Your task to perform on an android device: Turn off the flashlight Image 0: 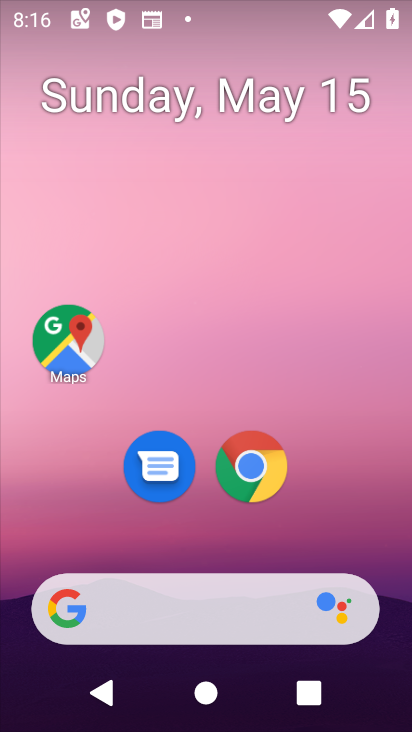
Step 0: drag from (213, 545) to (262, 9)
Your task to perform on an android device: Turn off the flashlight Image 1: 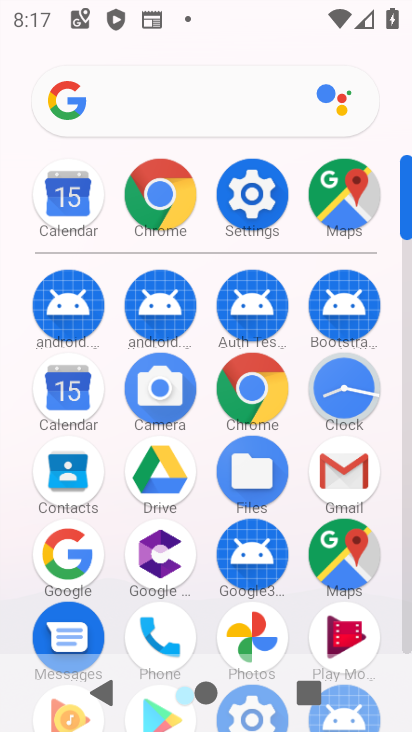
Step 1: click (272, 202)
Your task to perform on an android device: Turn off the flashlight Image 2: 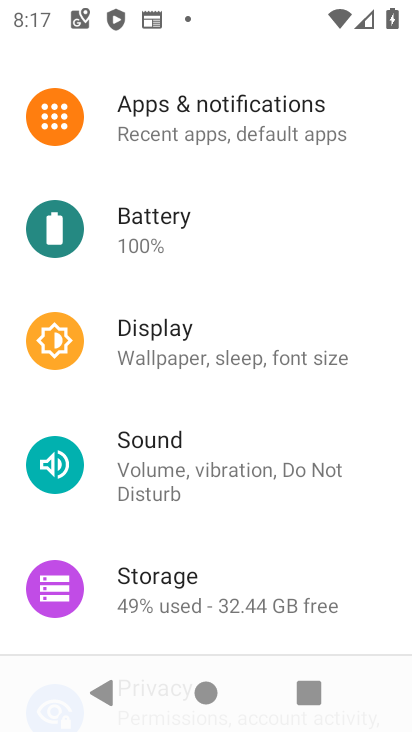
Step 2: click (194, 357)
Your task to perform on an android device: Turn off the flashlight Image 3: 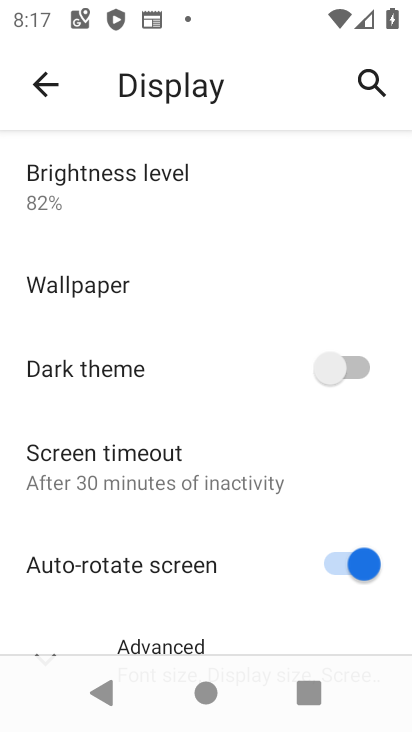
Step 3: drag from (233, 491) to (221, 185)
Your task to perform on an android device: Turn off the flashlight Image 4: 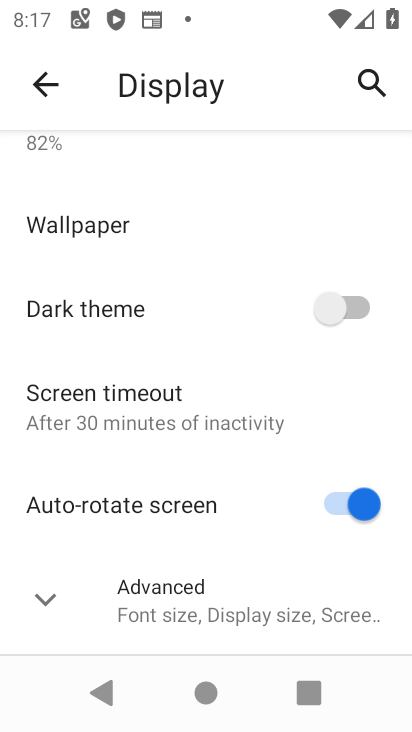
Step 4: click (41, 72)
Your task to perform on an android device: Turn off the flashlight Image 5: 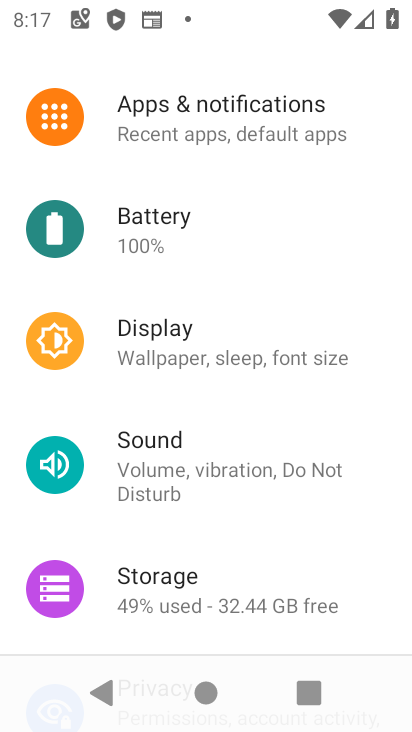
Step 5: task complete